Your task to perform on an android device: check data usage Image 0: 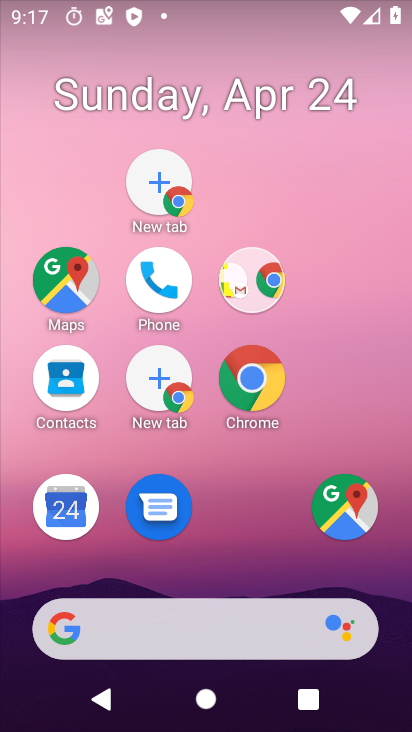
Step 0: drag from (279, 691) to (141, 88)
Your task to perform on an android device: check data usage Image 1: 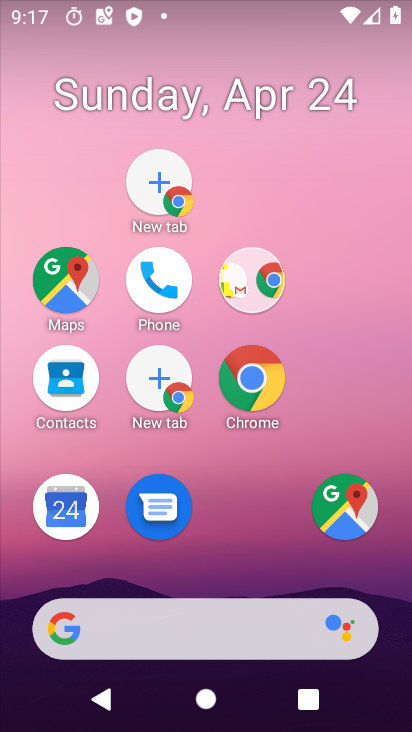
Step 1: drag from (127, 172) to (120, 120)
Your task to perform on an android device: check data usage Image 2: 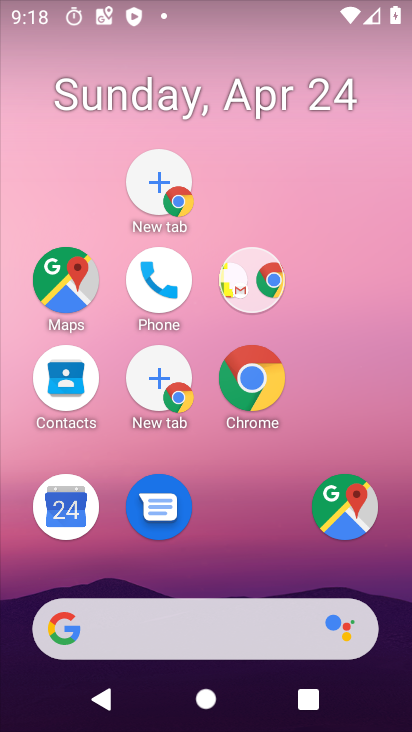
Step 2: drag from (258, 722) to (153, 258)
Your task to perform on an android device: check data usage Image 3: 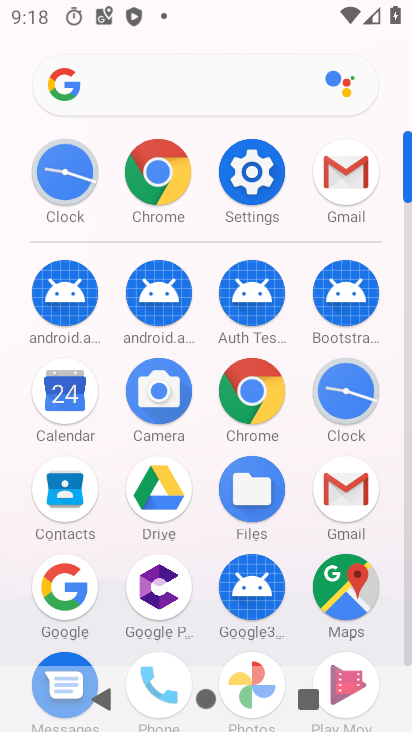
Step 3: click (240, 172)
Your task to perform on an android device: check data usage Image 4: 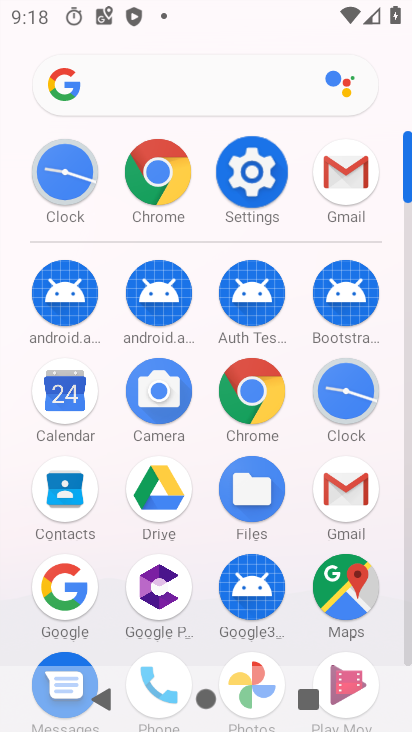
Step 4: click (240, 172)
Your task to perform on an android device: check data usage Image 5: 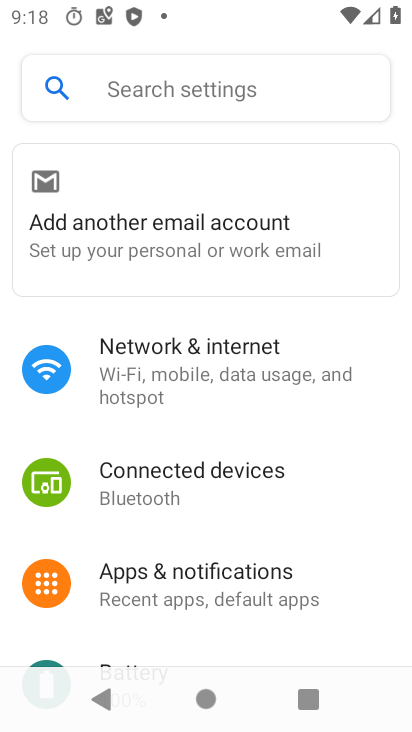
Step 5: drag from (193, 479) to (161, 193)
Your task to perform on an android device: check data usage Image 6: 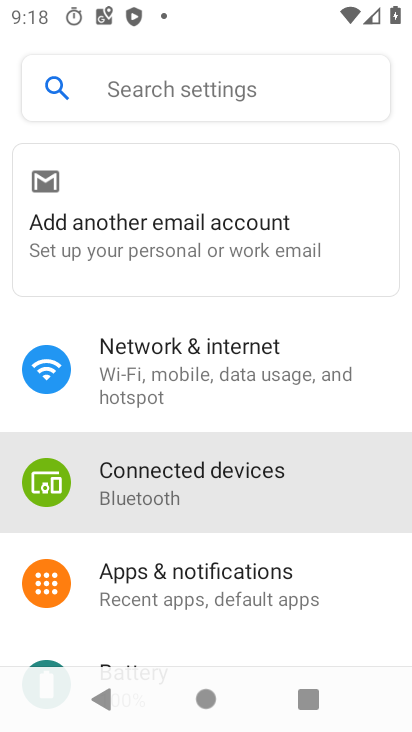
Step 6: drag from (198, 397) to (177, 179)
Your task to perform on an android device: check data usage Image 7: 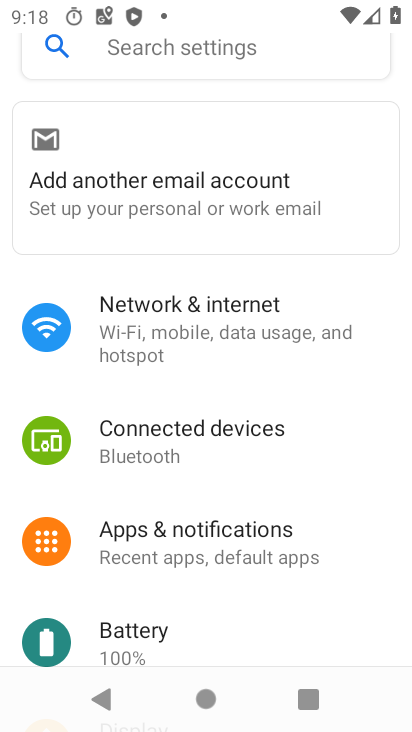
Step 7: drag from (150, 576) to (117, 148)
Your task to perform on an android device: check data usage Image 8: 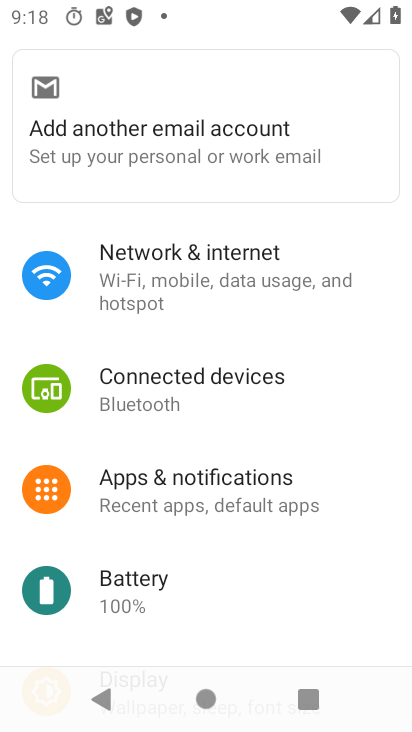
Step 8: drag from (195, 566) to (110, 165)
Your task to perform on an android device: check data usage Image 9: 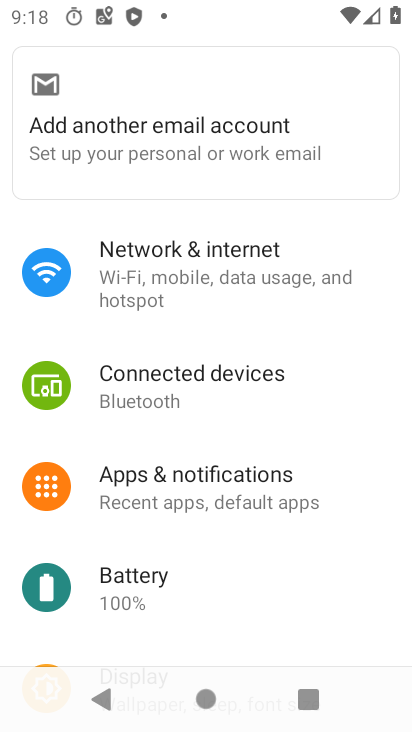
Step 9: drag from (184, 520) to (63, 61)
Your task to perform on an android device: check data usage Image 10: 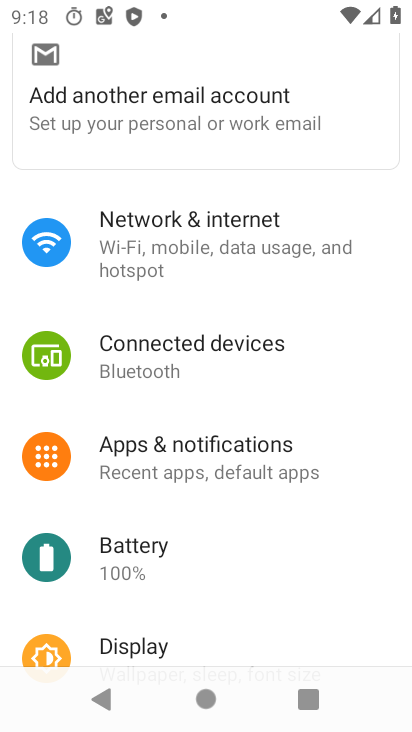
Step 10: drag from (249, 459) to (215, 138)
Your task to perform on an android device: check data usage Image 11: 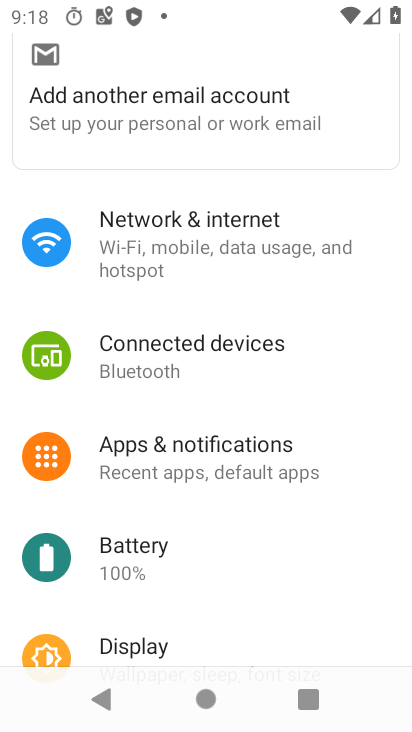
Step 11: drag from (207, 594) to (160, 153)
Your task to perform on an android device: check data usage Image 12: 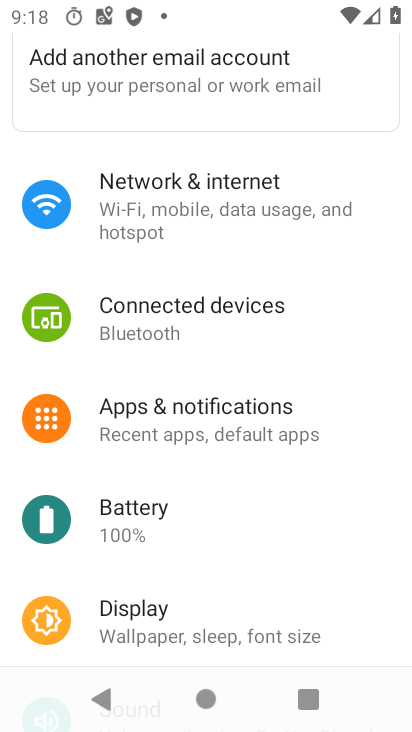
Step 12: drag from (210, 479) to (118, 712)
Your task to perform on an android device: check data usage Image 13: 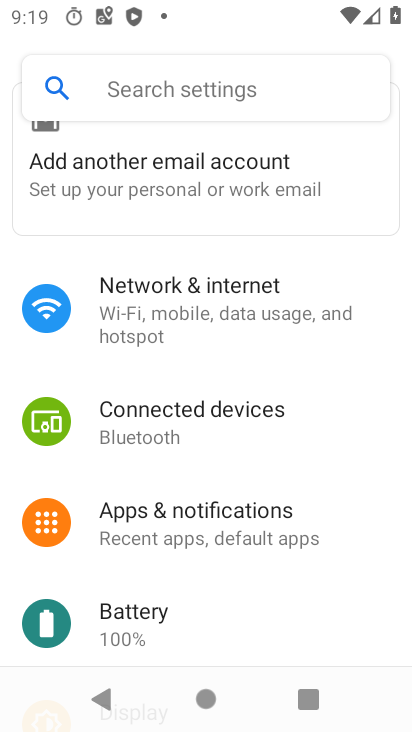
Step 13: click (172, 303)
Your task to perform on an android device: check data usage Image 14: 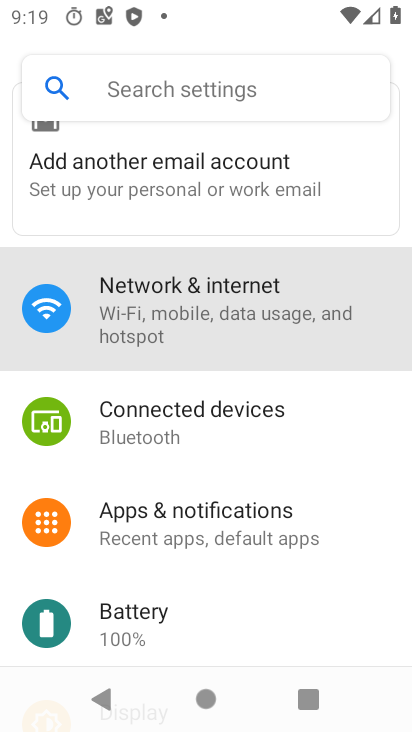
Step 14: click (187, 314)
Your task to perform on an android device: check data usage Image 15: 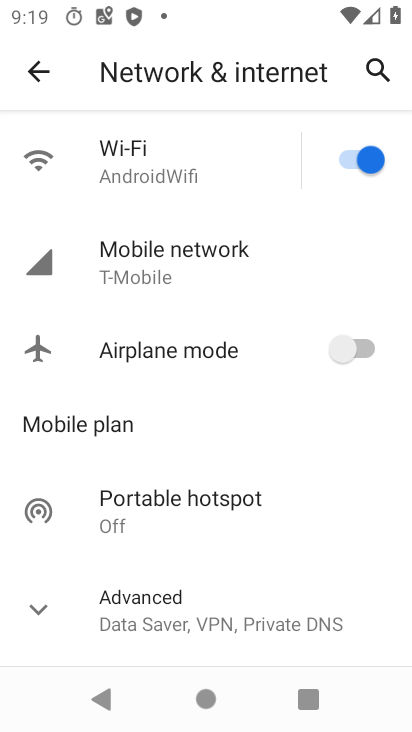
Step 15: task complete